Your task to perform on an android device: Open Reddit.com Image 0: 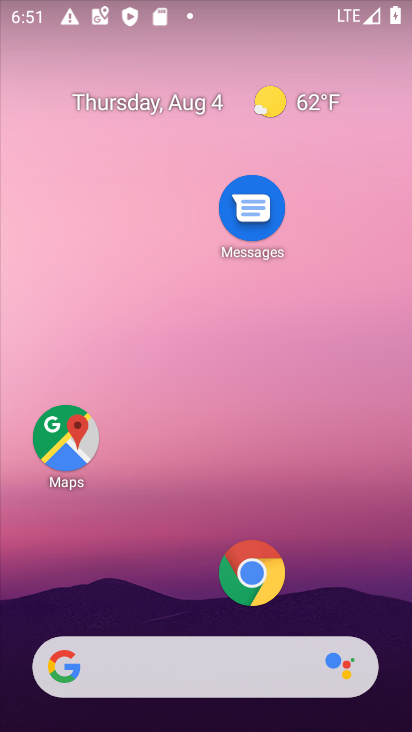
Step 0: click (48, 668)
Your task to perform on an android device: Open Reddit.com Image 1: 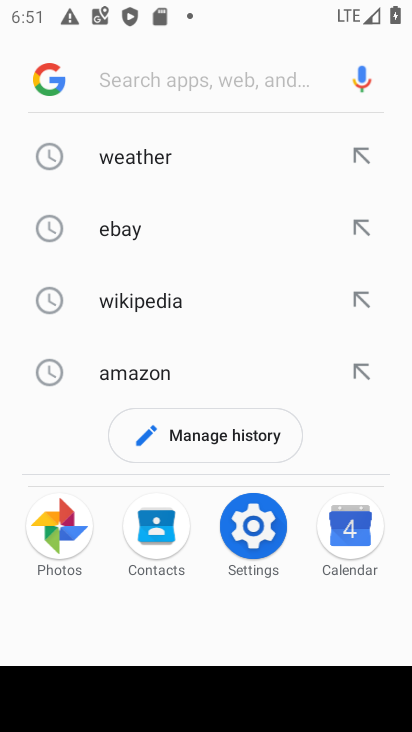
Step 1: type " Reddit.com"
Your task to perform on an android device: Open Reddit.com Image 2: 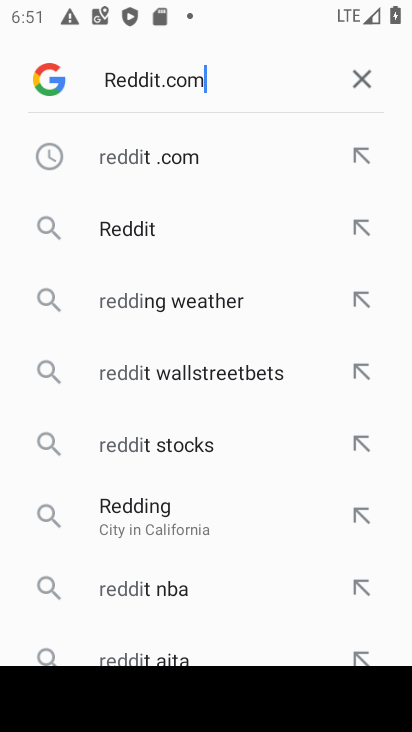
Step 2: press enter
Your task to perform on an android device: Open Reddit.com Image 3: 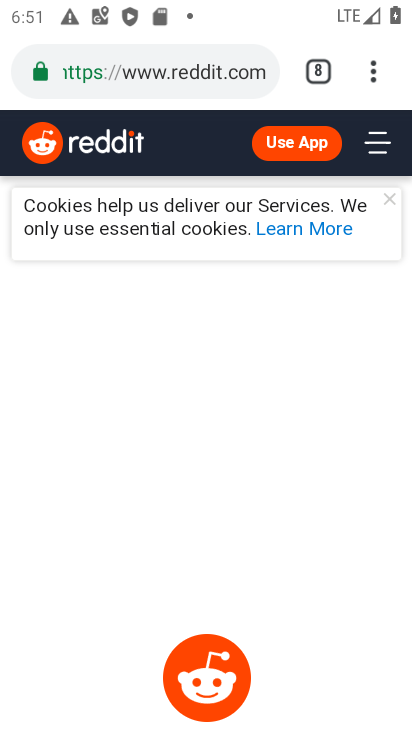
Step 3: task complete